Your task to perform on an android device: Search for vegetarian restaurants on Maps Image 0: 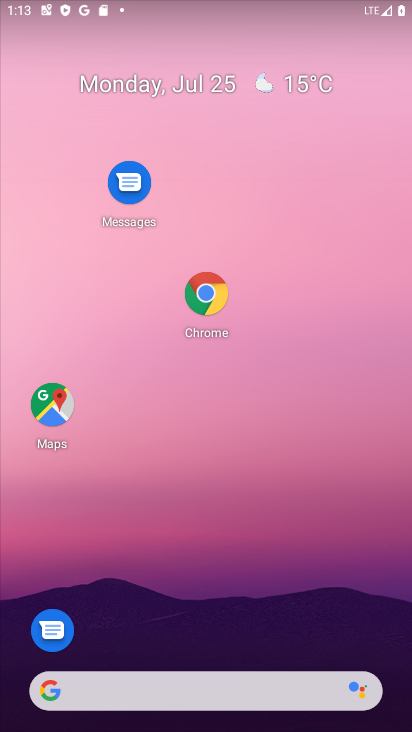
Step 0: drag from (257, 728) to (354, 521)
Your task to perform on an android device: Search for vegetarian restaurants on Maps Image 1: 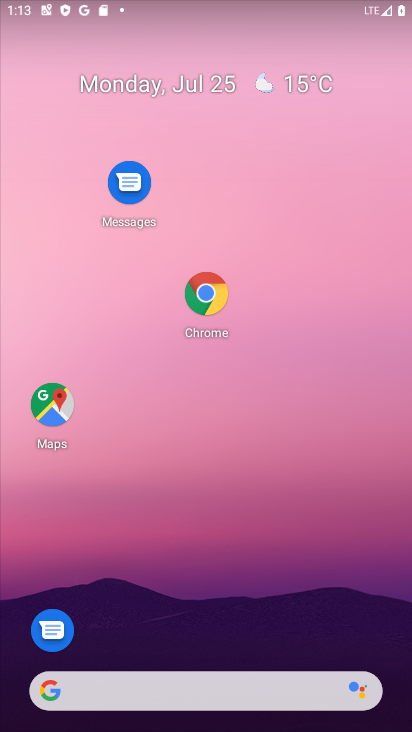
Step 1: click (45, 406)
Your task to perform on an android device: Search for vegetarian restaurants on Maps Image 2: 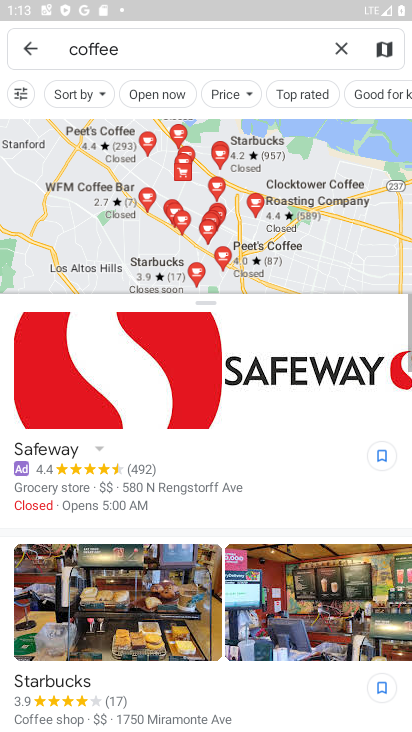
Step 2: click (341, 44)
Your task to perform on an android device: Search for vegetarian restaurants on Maps Image 3: 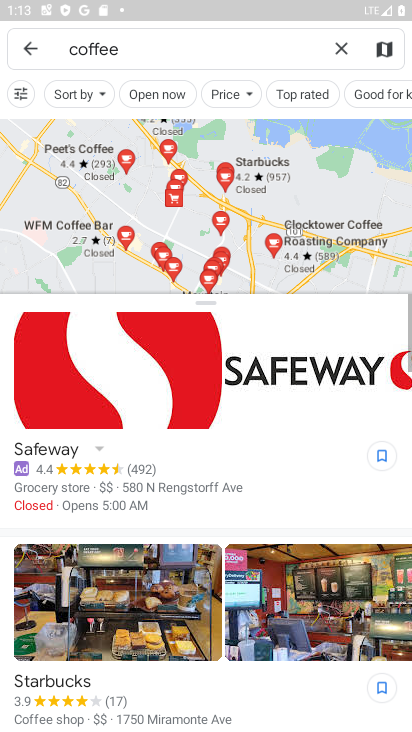
Step 3: click (287, 41)
Your task to perform on an android device: Search for vegetarian restaurants on Maps Image 4: 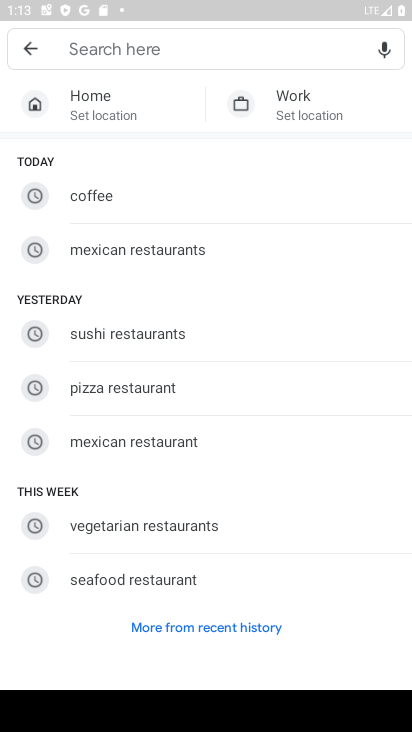
Step 4: type " vegetarian restaurants"
Your task to perform on an android device: Search for vegetarian restaurants on Maps Image 5: 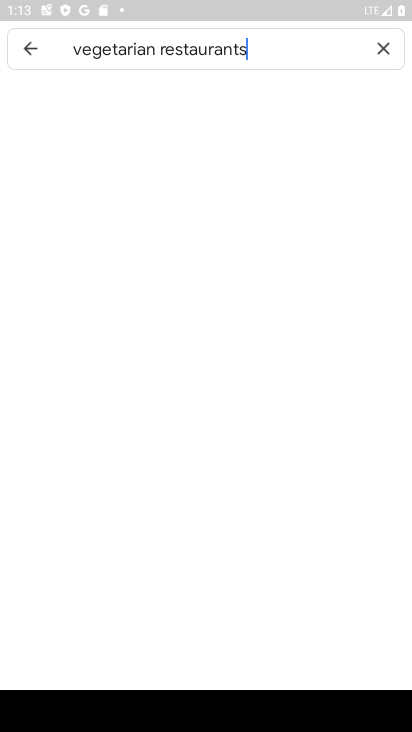
Step 5: type ""
Your task to perform on an android device: Search for vegetarian restaurants on Maps Image 6: 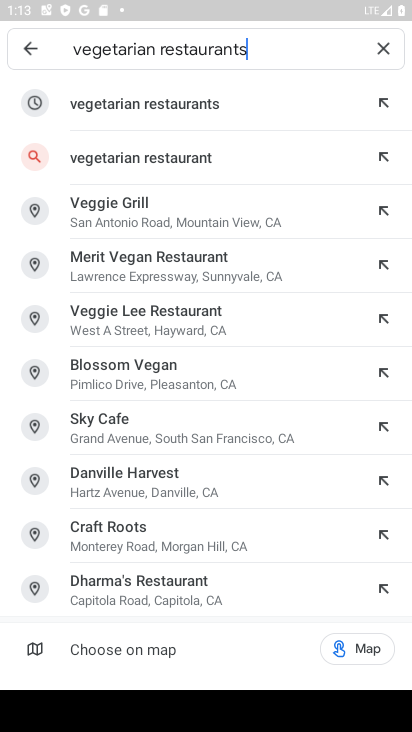
Step 6: click (117, 101)
Your task to perform on an android device: Search for vegetarian restaurants on Maps Image 7: 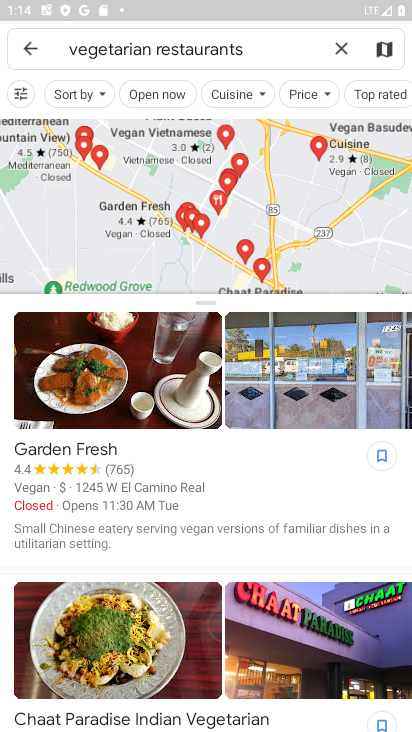
Step 7: task complete